Your task to perform on an android device: open app "Microsoft Outlook" Image 0: 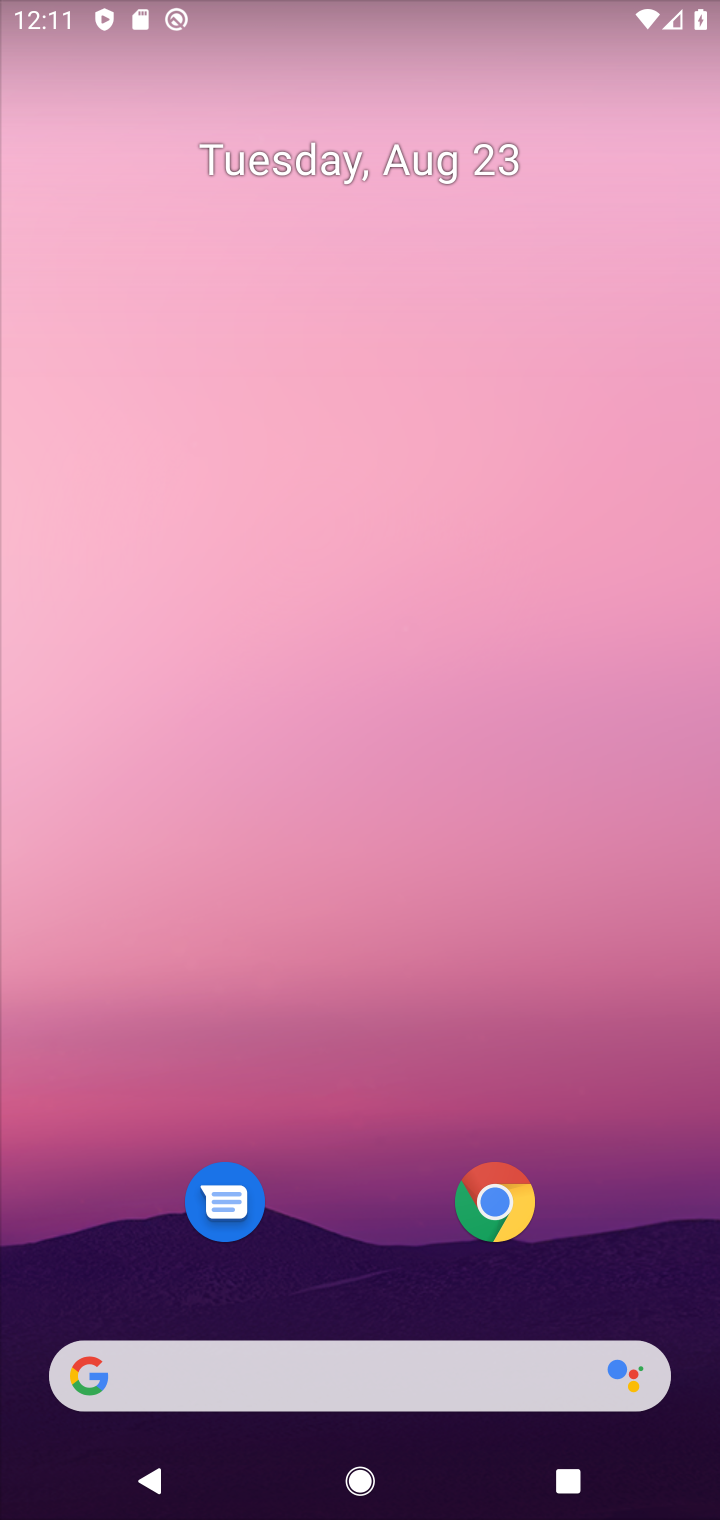
Step 0: drag from (461, 1050) to (409, 153)
Your task to perform on an android device: open app "Microsoft Outlook" Image 1: 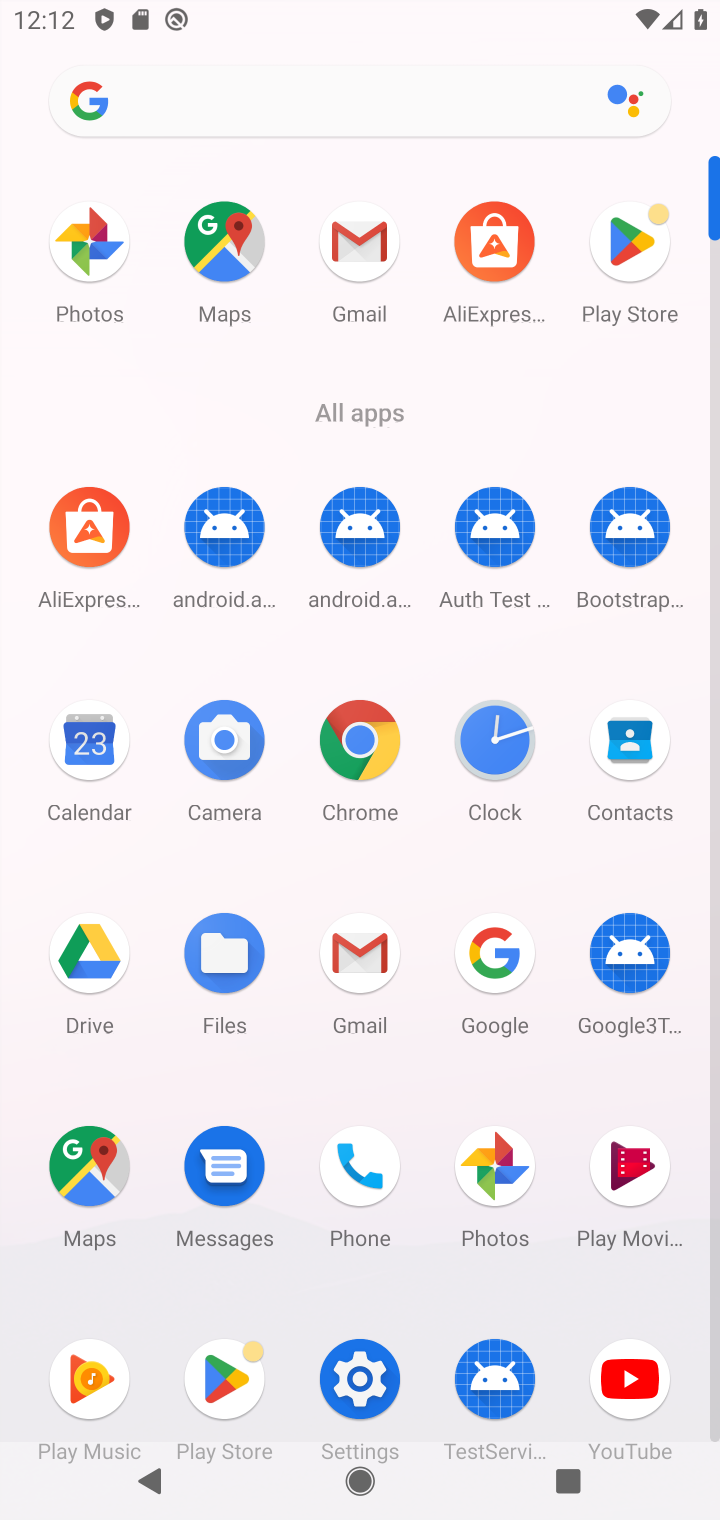
Step 1: click (608, 252)
Your task to perform on an android device: open app "Microsoft Outlook" Image 2: 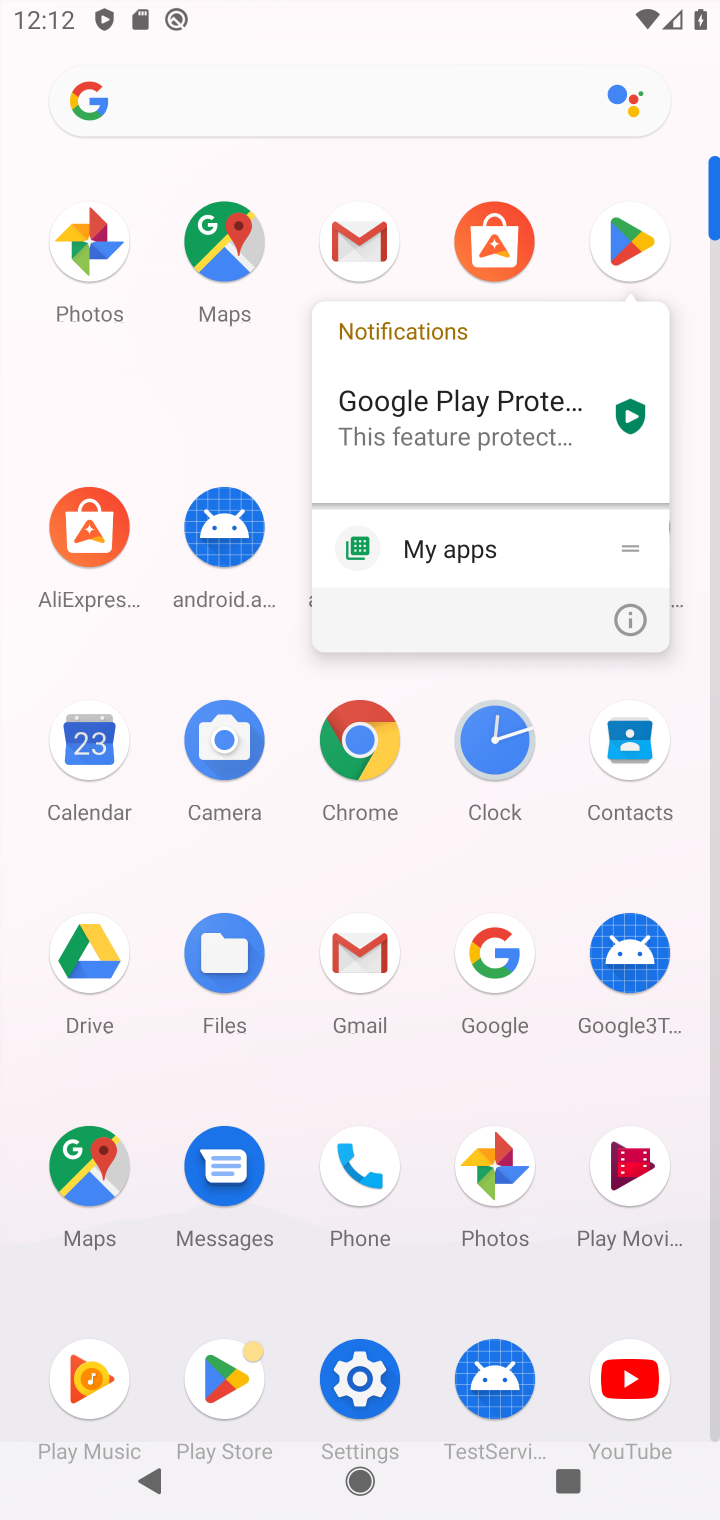
Step 2: click (622, 237)
Your task to perform on an android device: open app "Microsoft Outlook" Image 3: 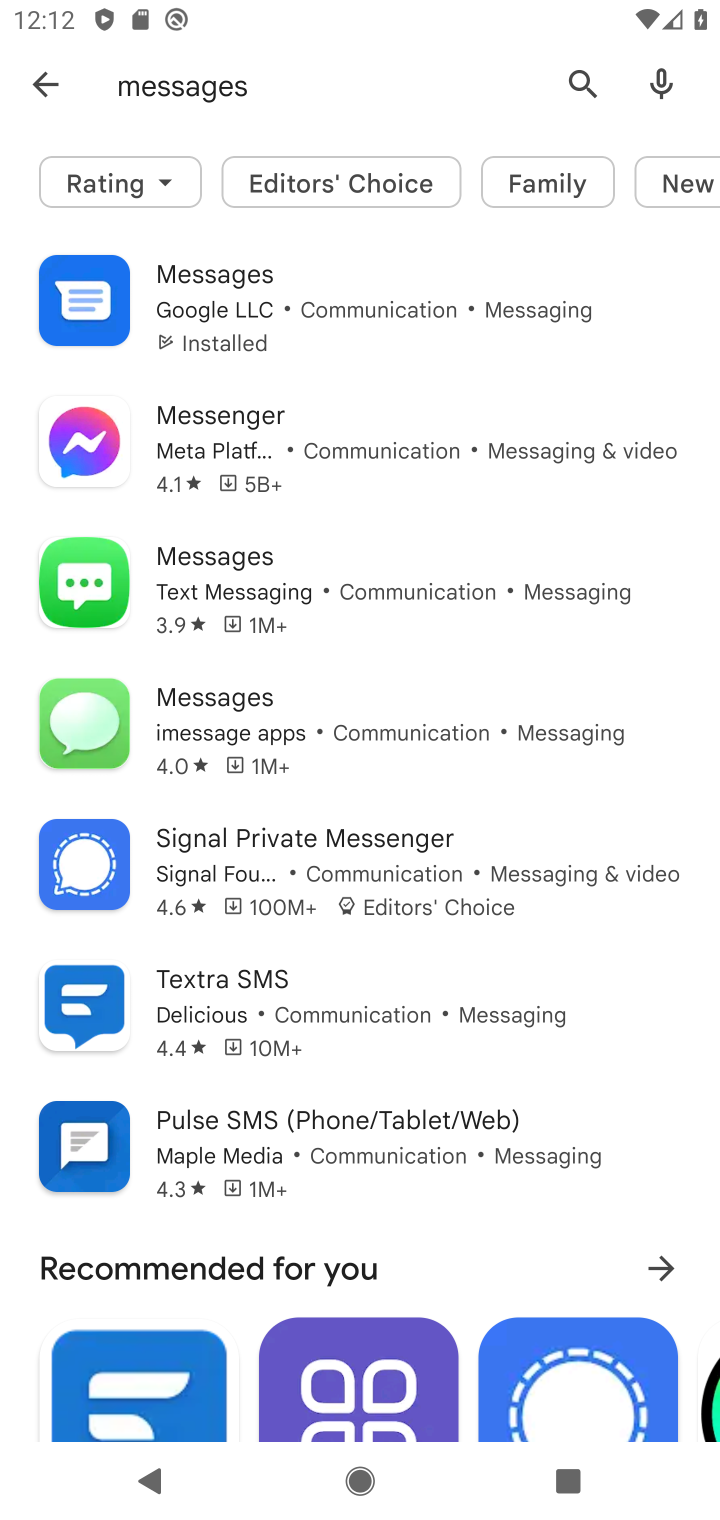
Step 3: click (577, 84)
Your task to perform on an android device: open app "Microsoft Outlook" Image 4: 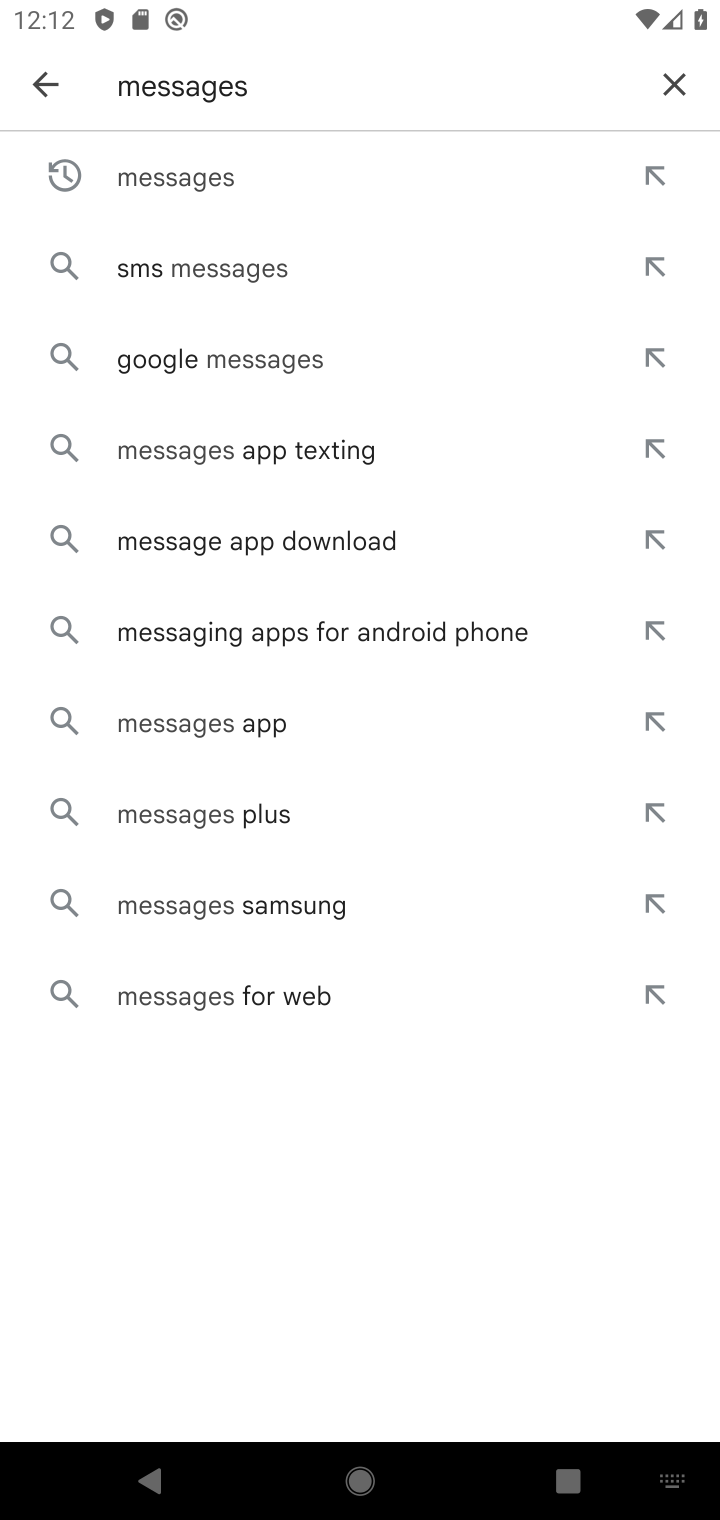
Step 4: click (659, 85)
Your task to perform on an android device: open app "Microsoft Outlook" Image 5: 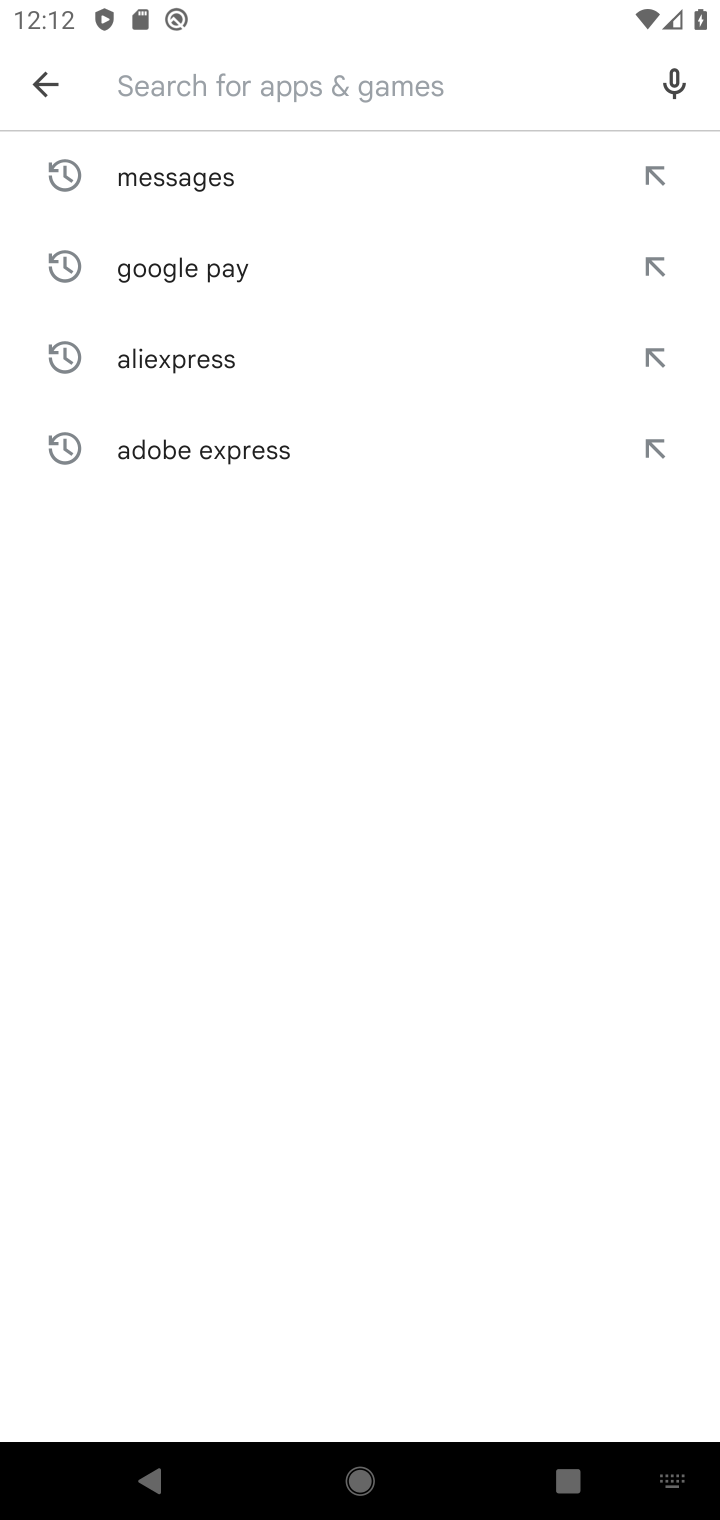
Step 5: type "microsoft outlook"
Your task to perform on an android device: open app "Microsoft Outlook" Image 6: 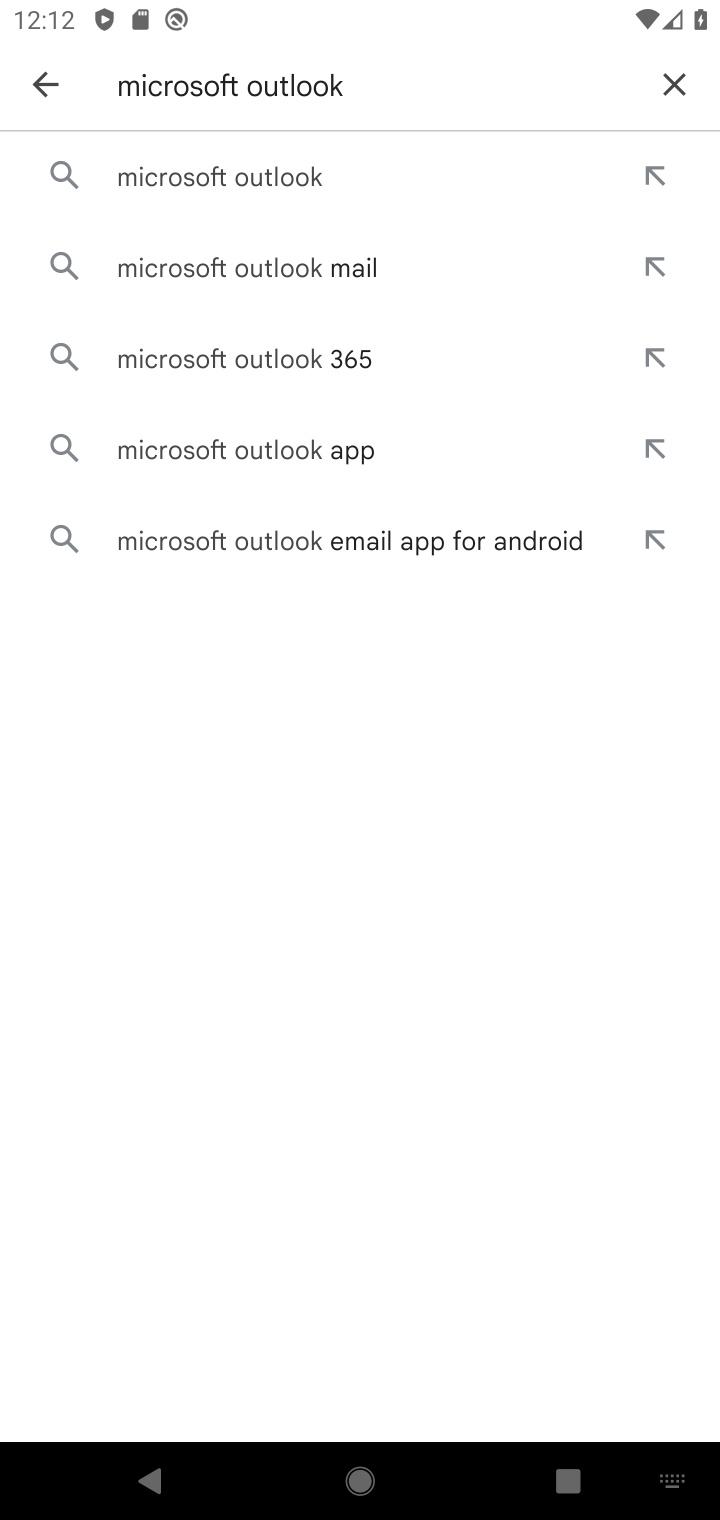
Step 6: click (229, 178)
Your task to perform on an android device: open app "Microsoft Outlook" Image 7: 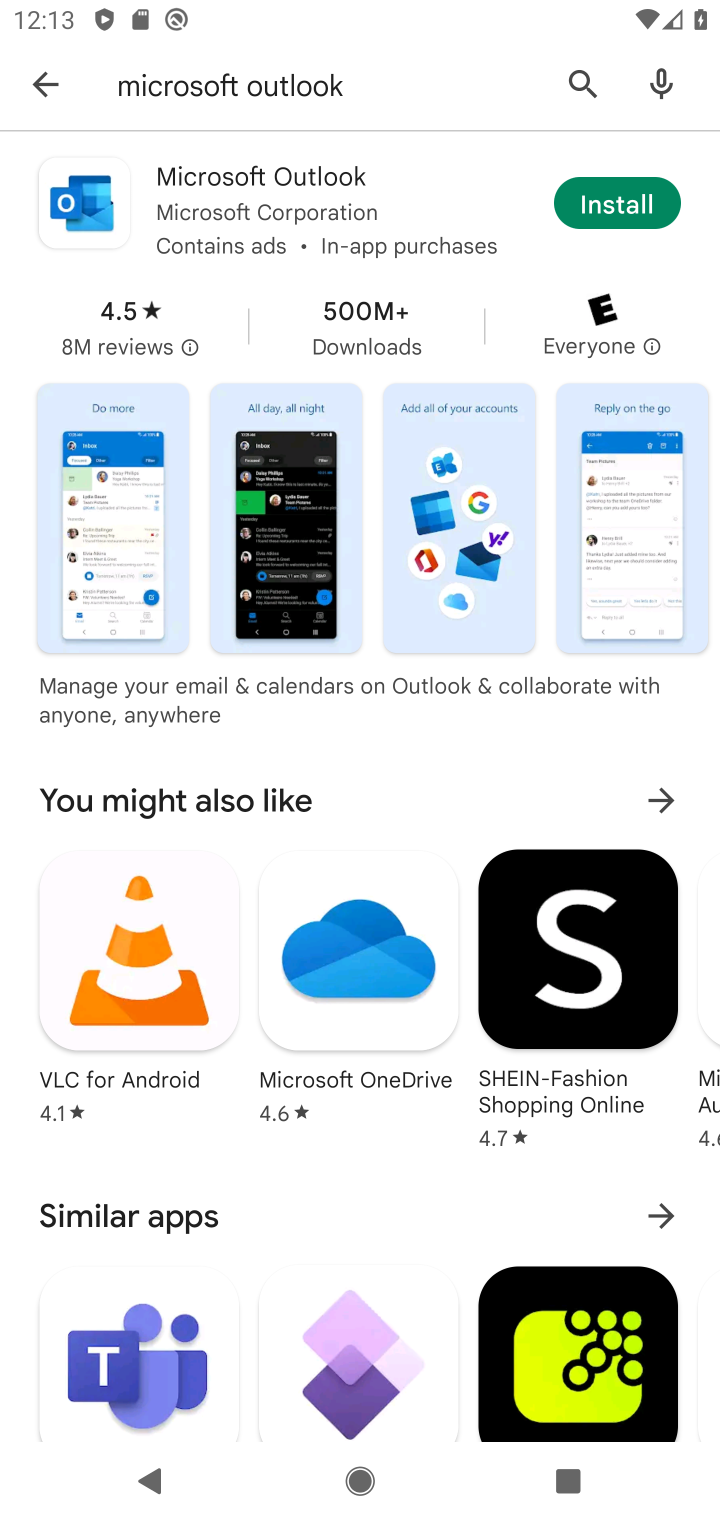
Step 7: task complete